Your task to perform on an android device: read, delete, or share a saved page in the chrome app Image 0: 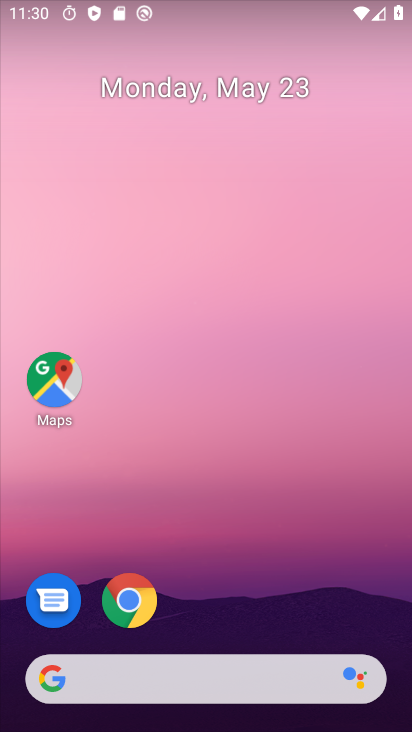
Step 0: click (125, 600)
Your task to perform on an android device: read, delete, or share a saved page in the chrome app Image 1: 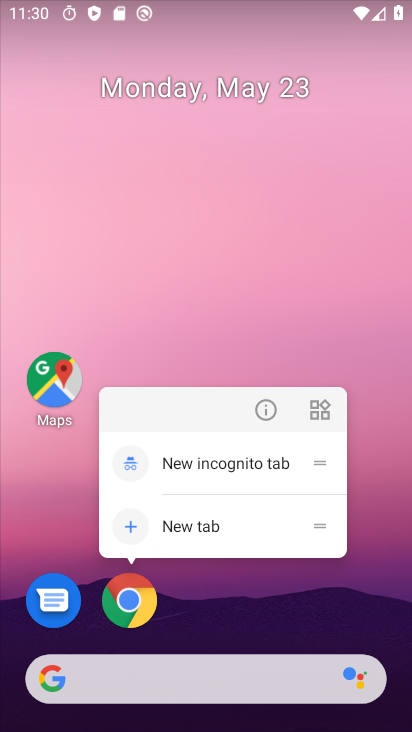
Step 1: click (126, 598)
Your task to perform on an android device: read, delete, or share a saved page in the chrome app Image 2: 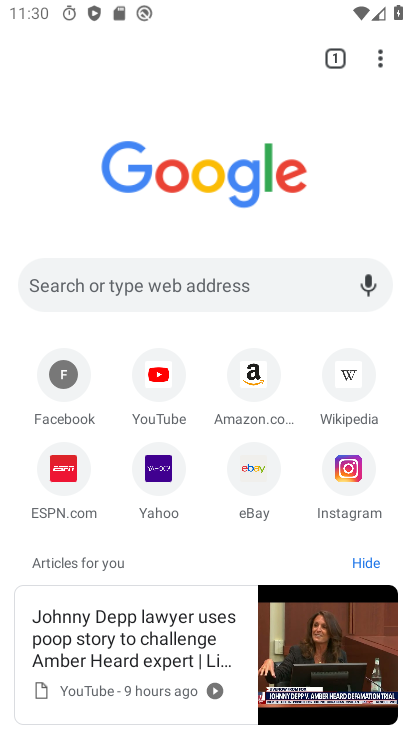
Step 2: task complete